Your task to perform on an android device: check android version Image 0: 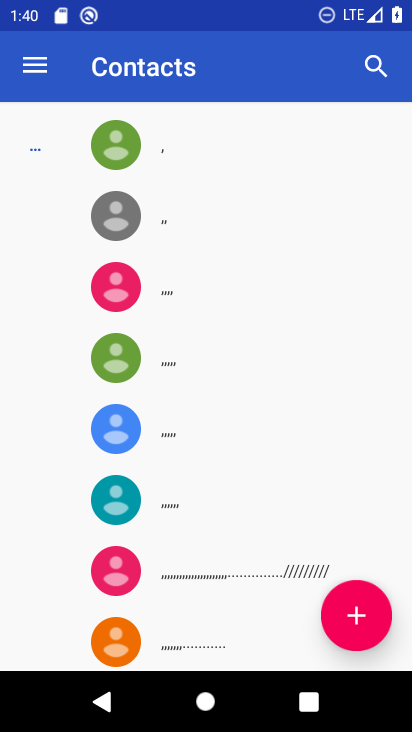
Step 0: press home button
Your task to perform on an android device: check android version Image 1: 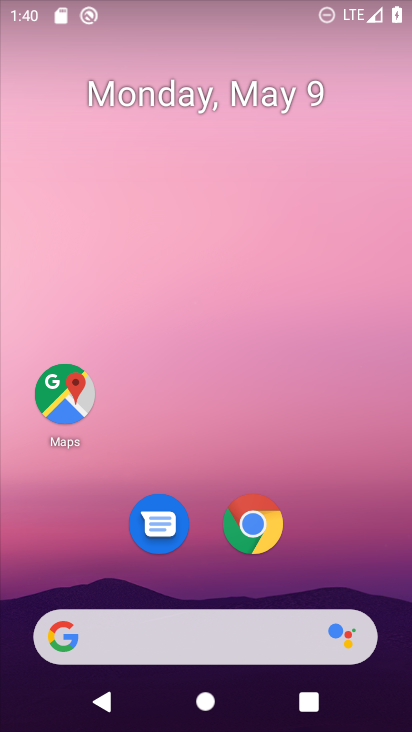
Step 1: drag from (342, 525) to (192, 24)
Your task to perform on an android device: check android version Image 2: 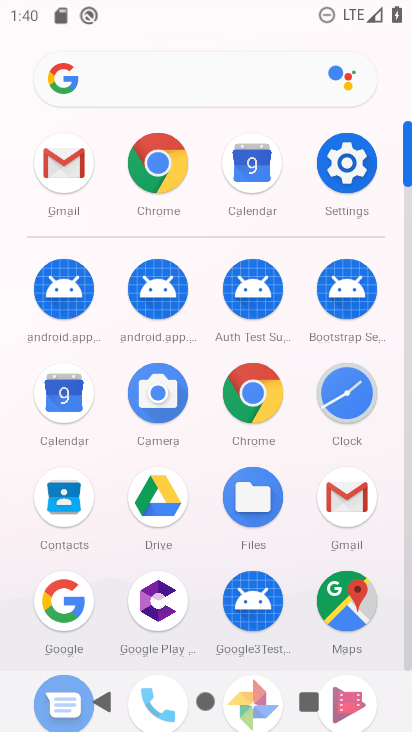
Step 2: click (324, 172)
Your task to perform on an android device: check android version Image 3: 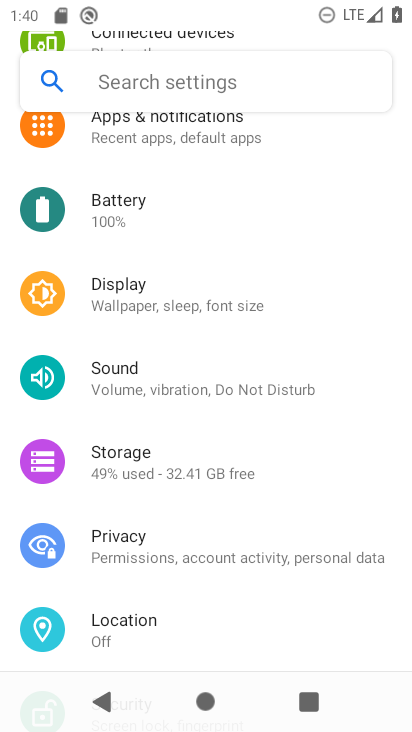
Step 3: drag from (231, 588) to (153, 90)
Your task to perform on an android device: check android version Image 4: 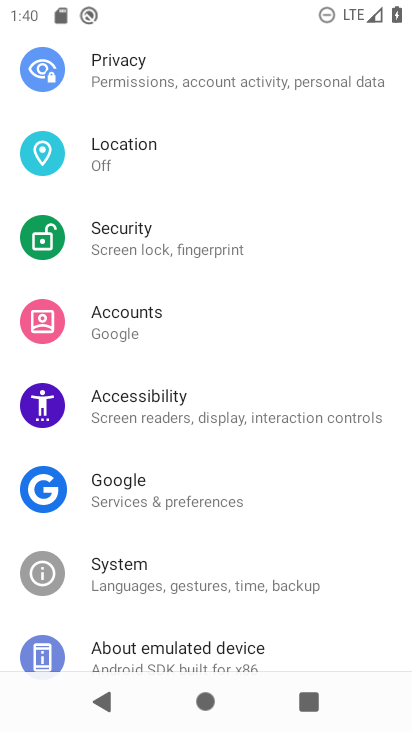
Step 4: drag from (238, 458) to (193, 212)
Your task to perform on an android device: check android version Image 5: 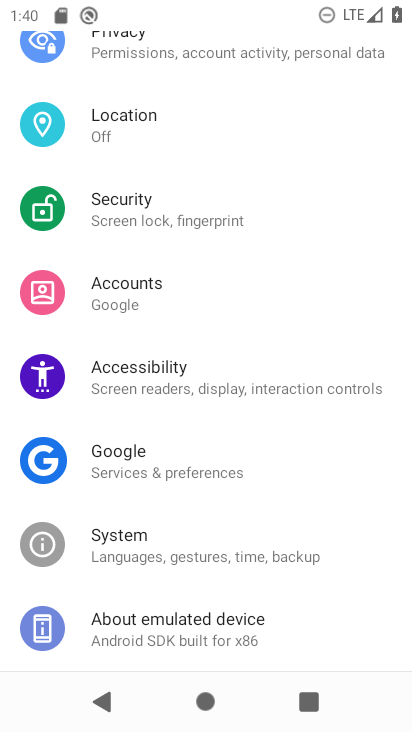
Step 5: click (202, 622)
Your task to perform on an android device: check android version Image 6: 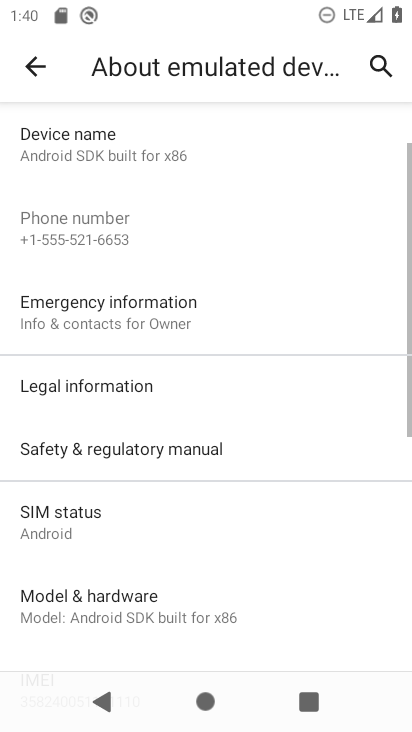
Step 6: drag from (212, 545) to (175, 243)
Your task to perform on an android device: check android version Image 7: 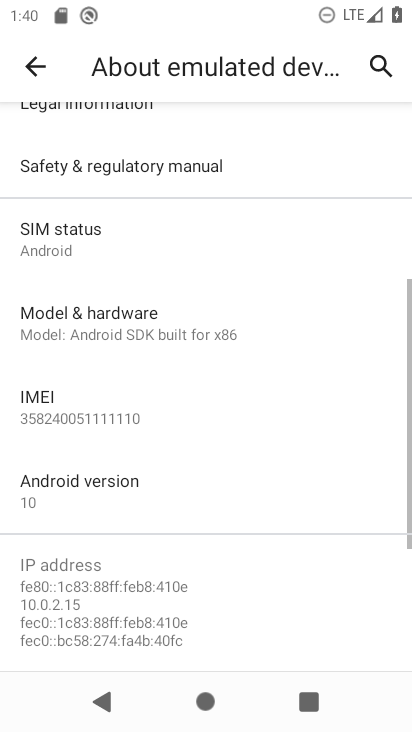
Step 7: click (86, 500)
Your task to perform on an android device: check android version Image 8: 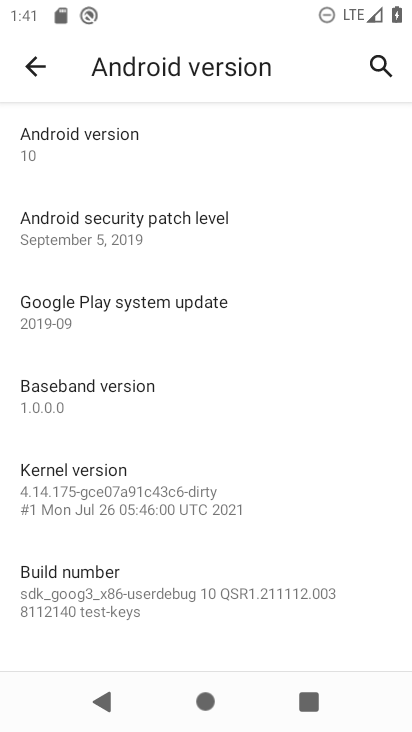
Step 8: task complete